Your task to perform on an android device: Open eBay Image 0: 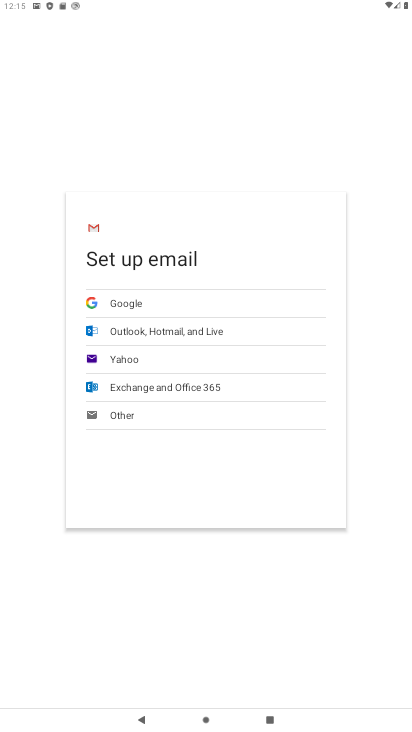
Step 0: press home button
Your task to perform on an android device: Open eBay Image 1: 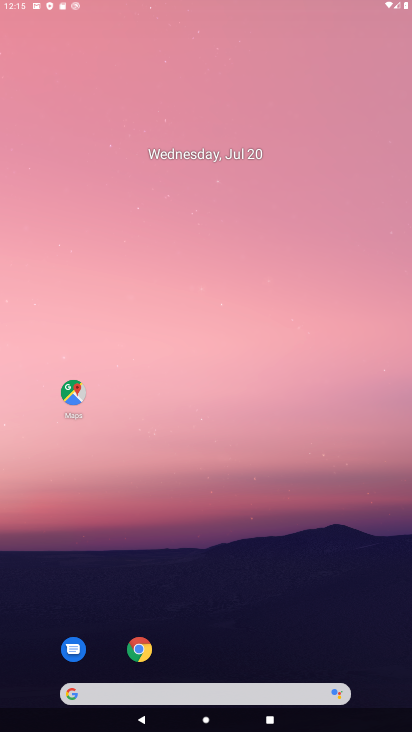
Step 1: drag from (208, 642) to (220, 79)
Your task to perform on an android device: Open eBay Image 2: 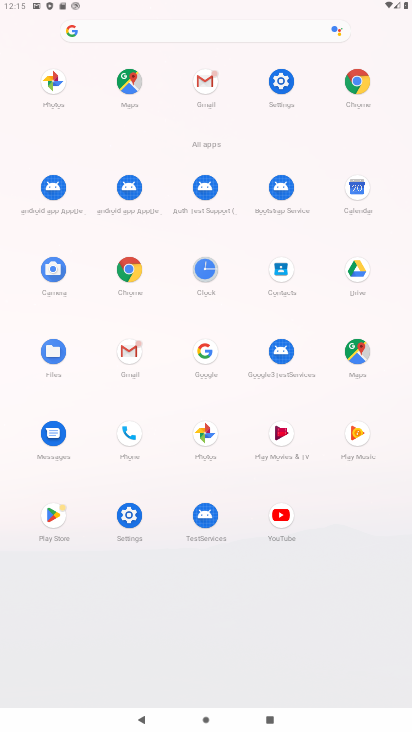
Step 2: click (208, 350)
Your task to perform on an android device: Open eBay Image 3: 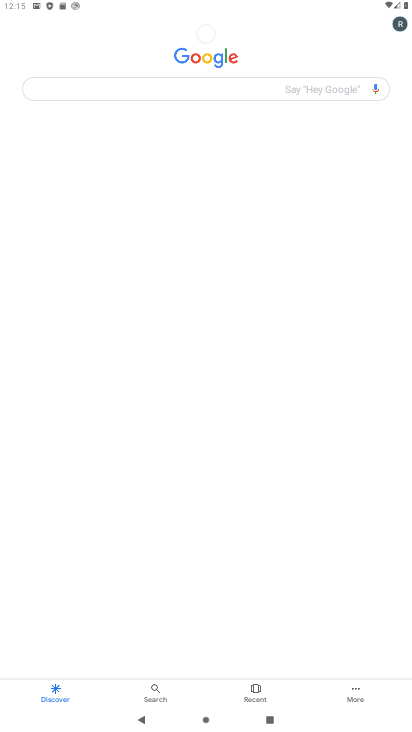
Step 3: click (192, 91)
Your task to perform on an android device: Open eBay Image 4: 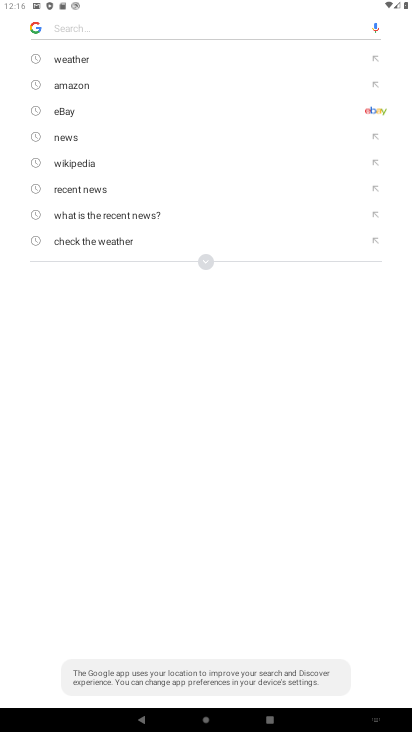
Step 4: click (82, 114)
Your task to perform on an android device: Open eBay Image 5: 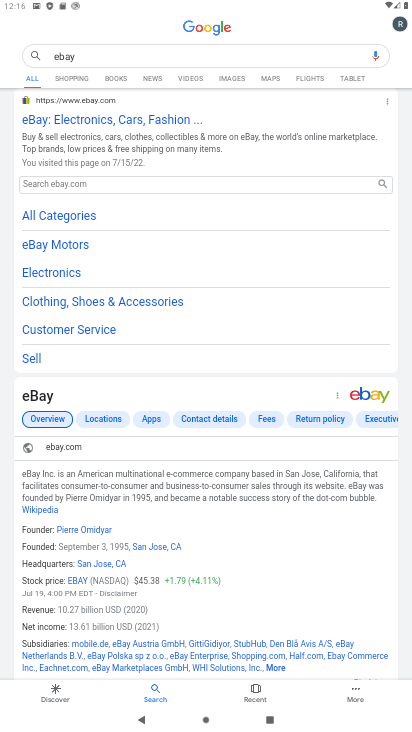
Step 5: click (127, 114)
Your task to perform on an android device: Open eBay Image 6: 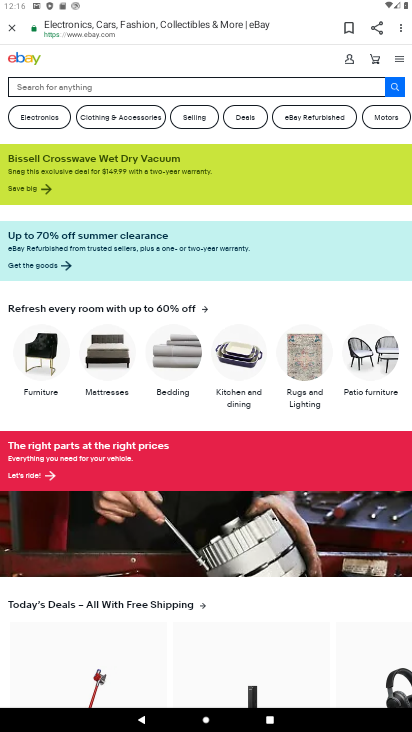
Step 6: task complete